Your task to perform on an android device: Show me the alarms in the clock app Image 0: 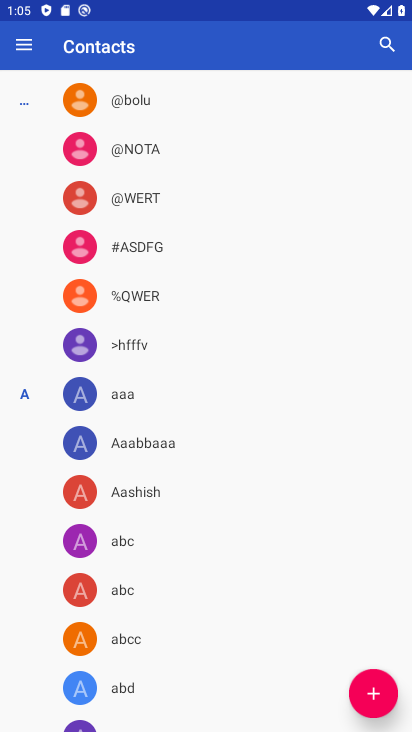
Step 0: press back button
Your task to perform on an android device: Show me the alarms in the clock app Image 1: 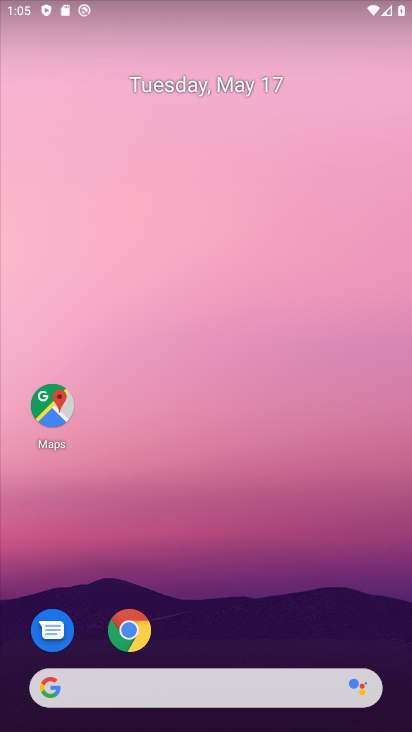
Step 1: drag from (213, 586) to (241, 74)
Your task to perform on an android device: Show me the alarms in the clock app Image 2: 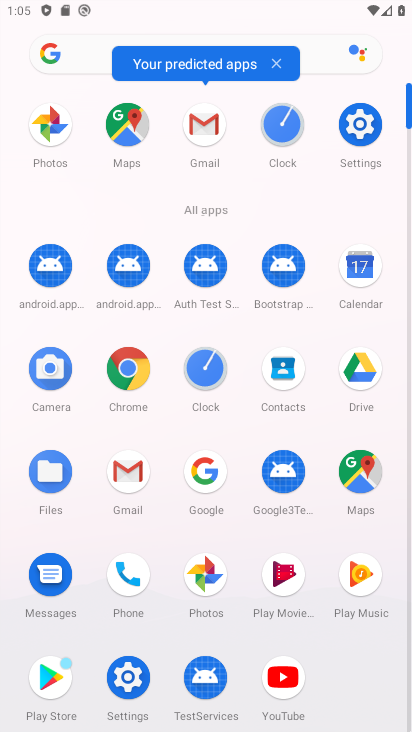
Step 2: click (211, 398)
Your task to perform on an android device: Show me the alarms in the clock app Image 3: 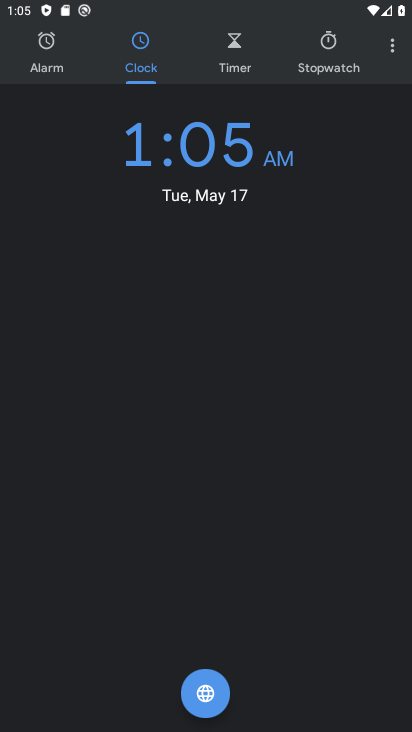
Step 3: click (48, 53)
Your task to perform on an android device: Show me the alarms in the clock app Image 4: 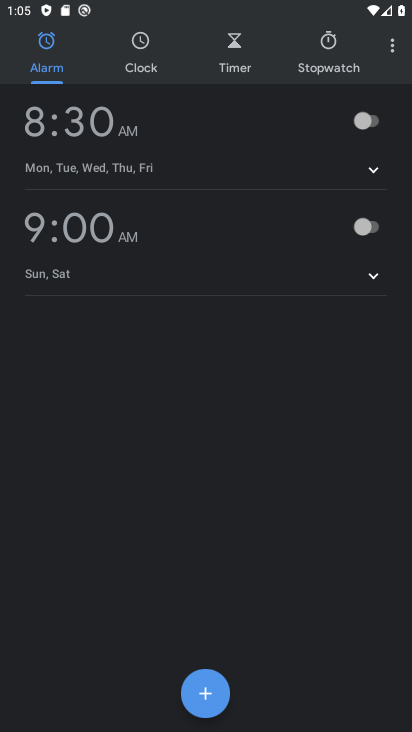
Step 4: task complete